Your task to perform on an android device: Go to Yahoo.com Image 0: 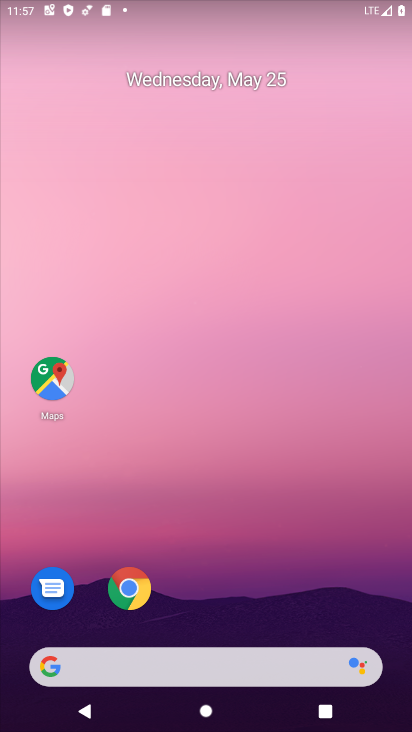
Step 0: drag from (213, 533) to (141, 12)
Your task to perform on an android device: Go to Yahoo.com Image 1: 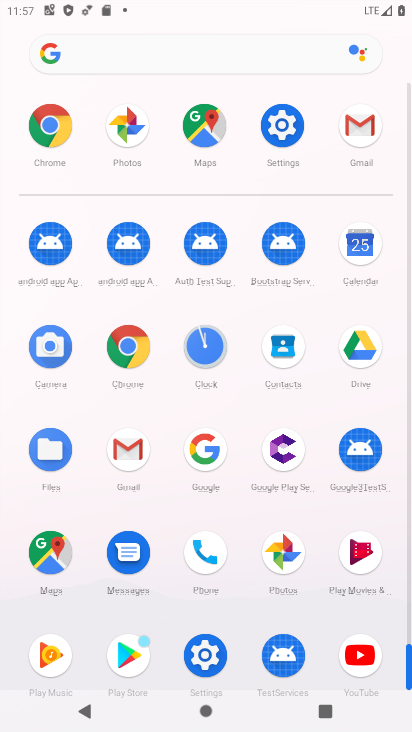
Step 1: drag from (11, 565) to (36, 212)
Your task to perform on an android device: Go to Yahoo.com Image 2: 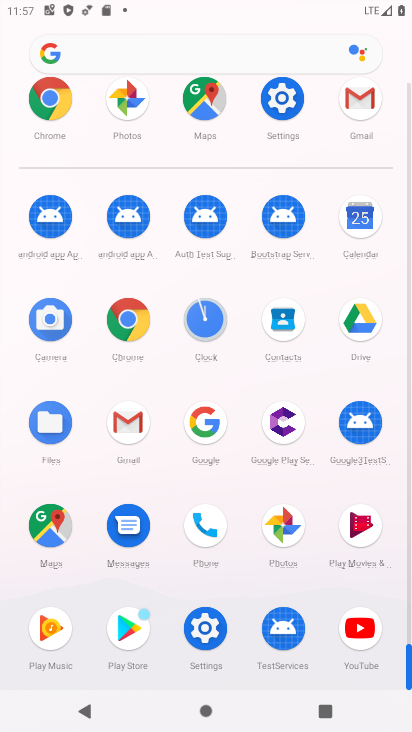
Step 2: click (128, 317)
Your task to perform on an android device: Go to Yahoo.com Image 3: 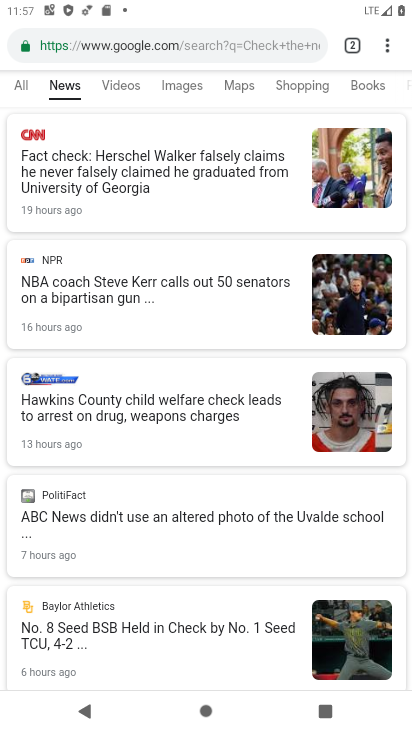
Step 3: click (119, 51)
Your task to perform on an android device: Go to Yahoo.com Image 4: 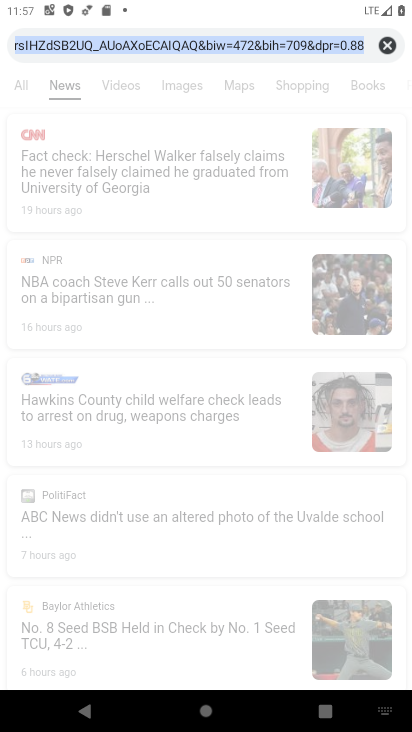
Step 4: click (381, 45)
Your task to perform on an android device: Go to Yahoo.com Image 5: 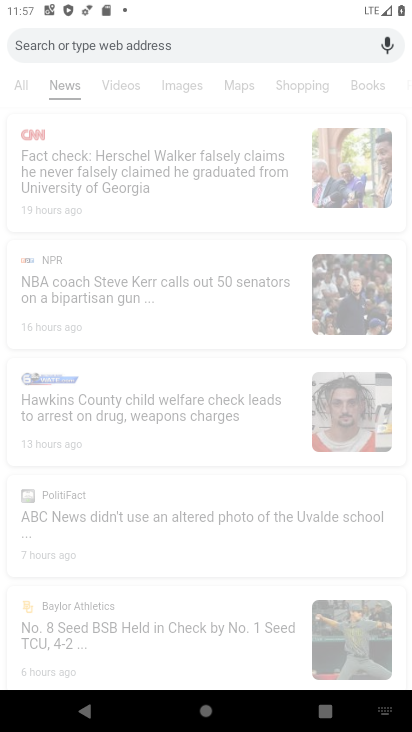
Step 5: type "Yahoo.com"
Your task to perform on an android device: Go to Yahoo.com Image 6: 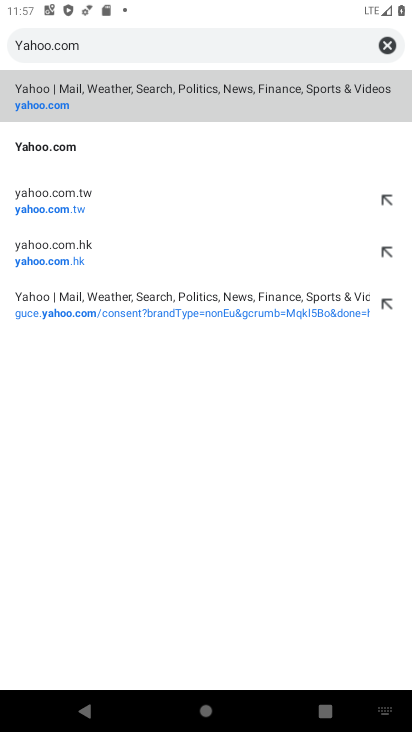
Step 6: click (124, 95)
Your task to perform on an android device: Go to Yahoo.com Image 7: 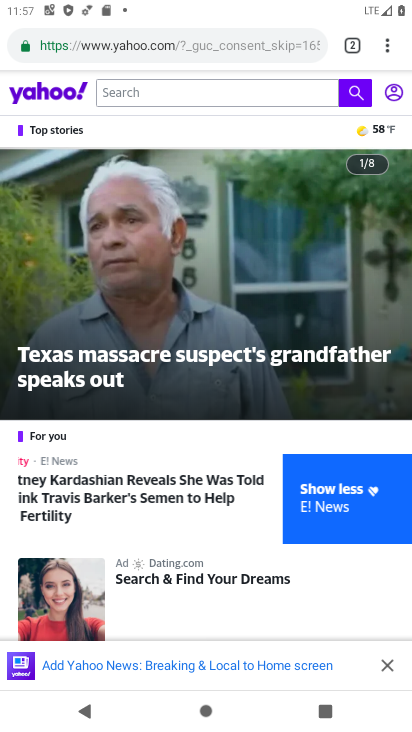
Step 7: task complete